Your task to perform on an android device: turn off translation in the chrome app Image 0: 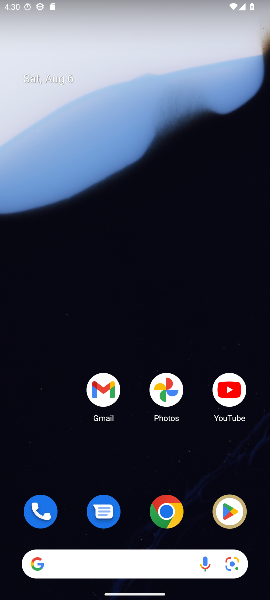
Step 0: click (165, 510)
Your task to perform on an android device: turn off translation in the chrome app Image 1: 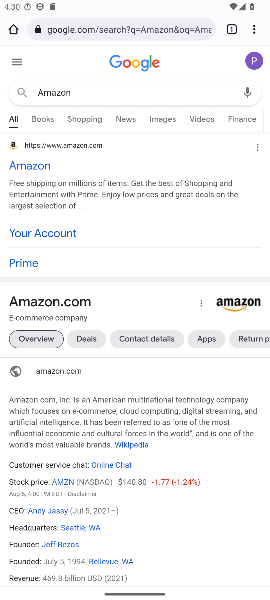
Step 1: click (255, 30)
Your task to perform on an android device: turn off translation in the chrome app Image 2: 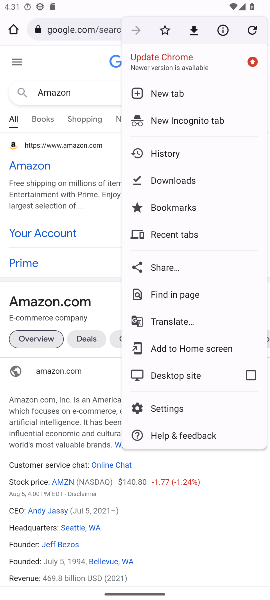
Step 2: click (165, 406)
Your task to perform on an android device: turn off translation in the chrome app Image 3: 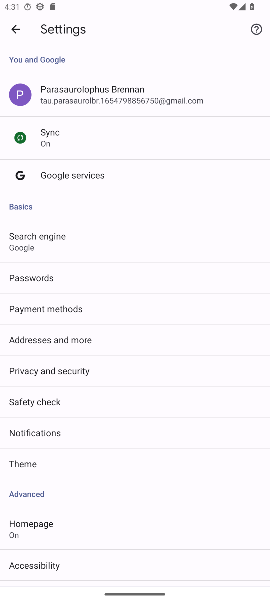
Step 3: drag from (60, 306) to (95, 108)
Your task to perform on an android device: turn off translation in the chrome app Image 4: 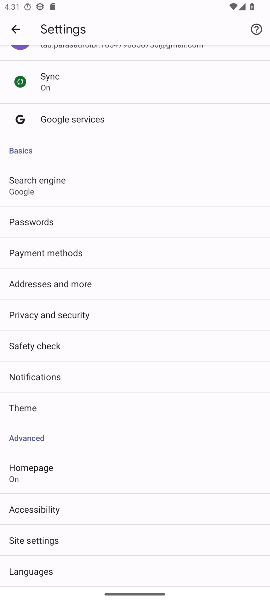
Step 4: click (44, 571)
Your task to perform on an android device: turn off translation in the chrome app Image 5: 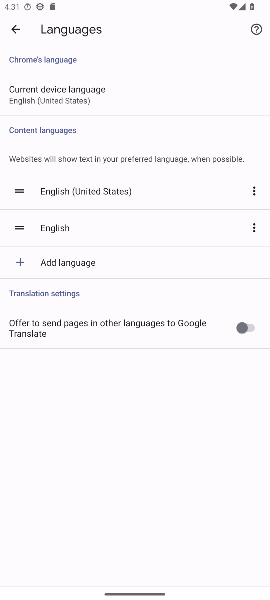
Step 5: task complete